Your task to perform on an android device: empty trash in the gmail app Image 0: 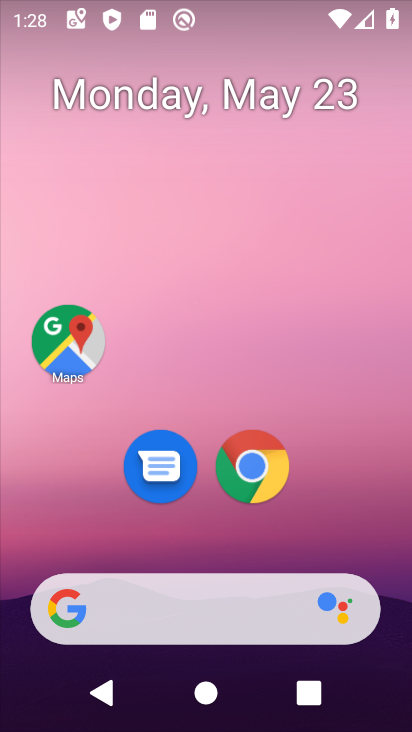
Step 0: drag from (340, 522) to (412, 355)
Your task to perform on an android device: empty trash in the gmail app Image 1: 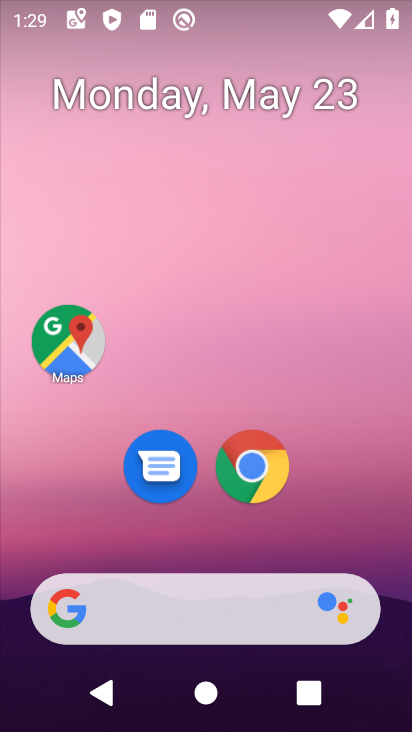
Step 1: drag from (308, 554) to (281, 4)
Your task to perform on an android device: empty trash in the gmail app Image 2: 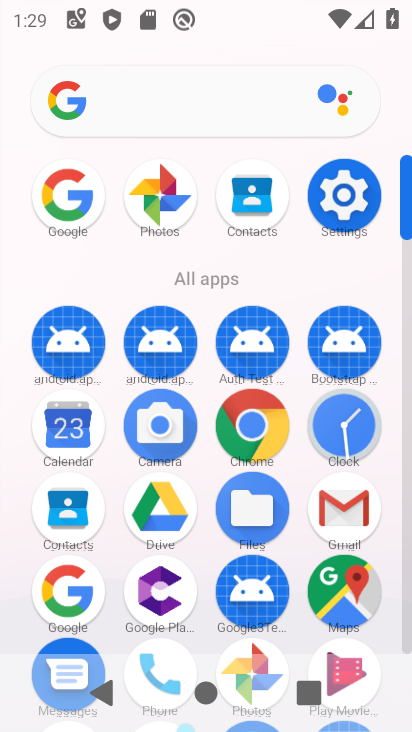
Step 2: click (343, 502)
Your task to perform on an android device: empty trash in the gmail app Image 3: 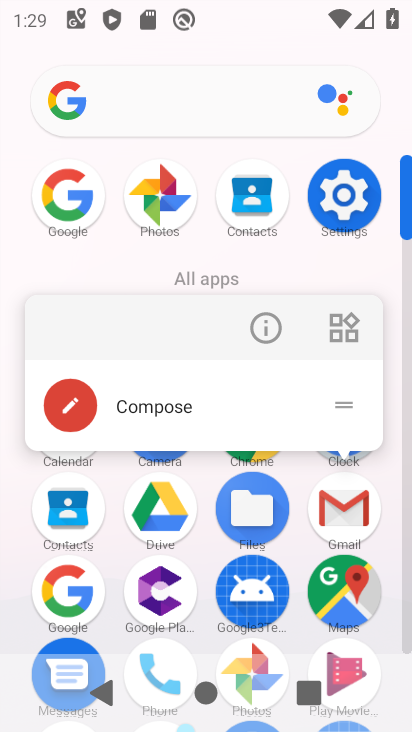
Step 3: click (344, 508)
Your task to perform on an android device: empty trash in the gmail app Image 4: 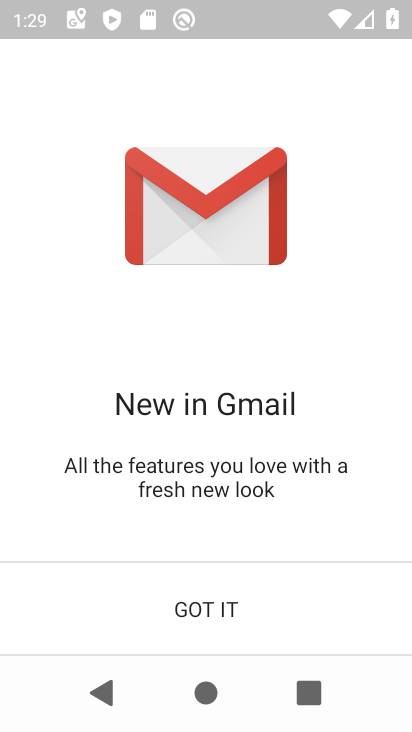
Step 4: click (193, 603)
Your task to perform on an android device: empty trash in the gmail app Image 5: 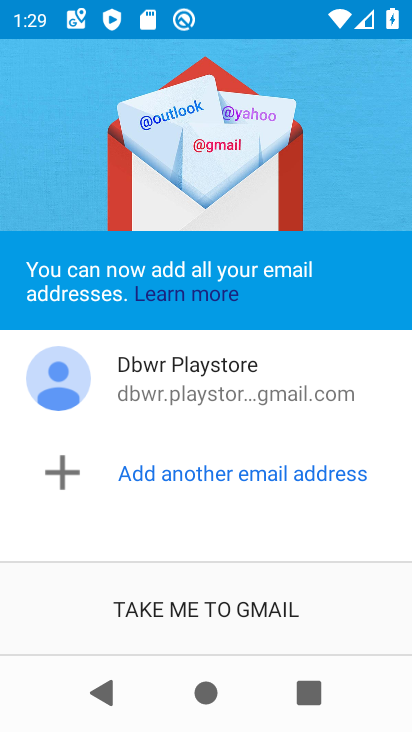
Step 5: click (193, 603)
Your task to perform on an android device: empty trash in the gmail app Image 6: 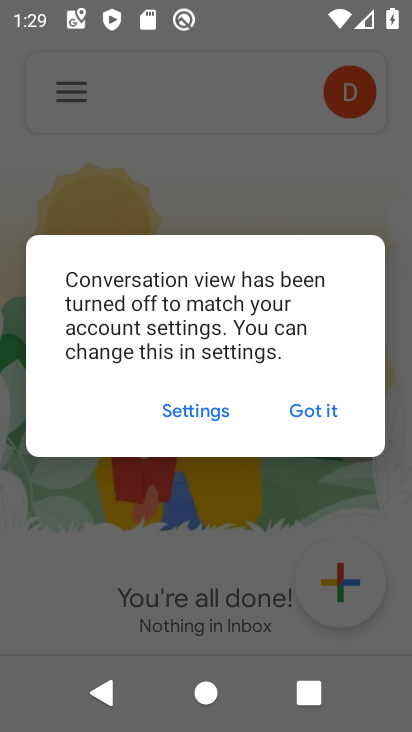
Step 6: click (309, 407)
Your task to perform on an android device: empty trash in the gmail app Image 7: 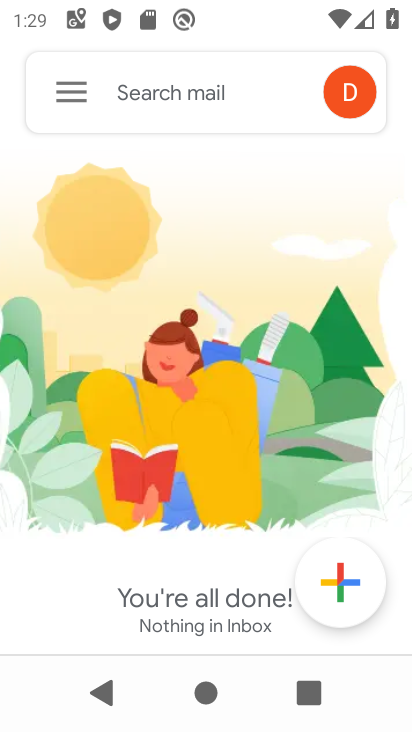
Step 7: click (74, 97)
Your task to perform on an android device: empty trash in the gmail app Image 8: 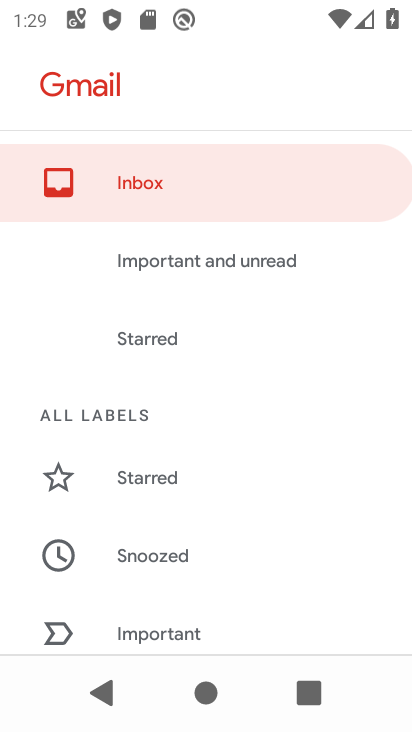
Step 8: drag from (138, 533) to (177, 433)
Your task to perform on an android device: empty trash in the gmail app Image 9: 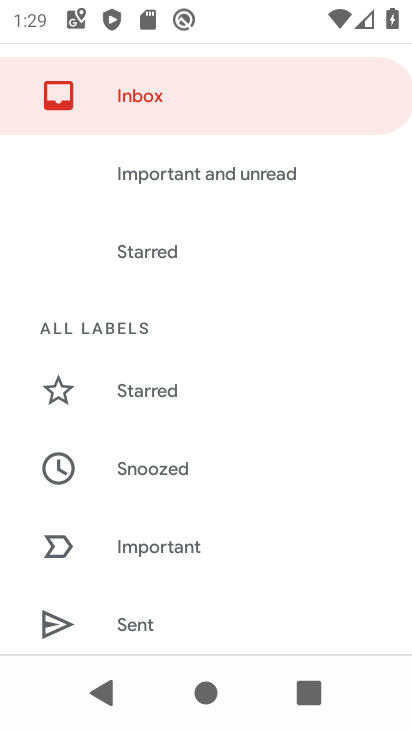
Step 9: drag from (137, 510) to (178, 414)
Your task to perform on an android device: empty trash in the gmail app Image 10: 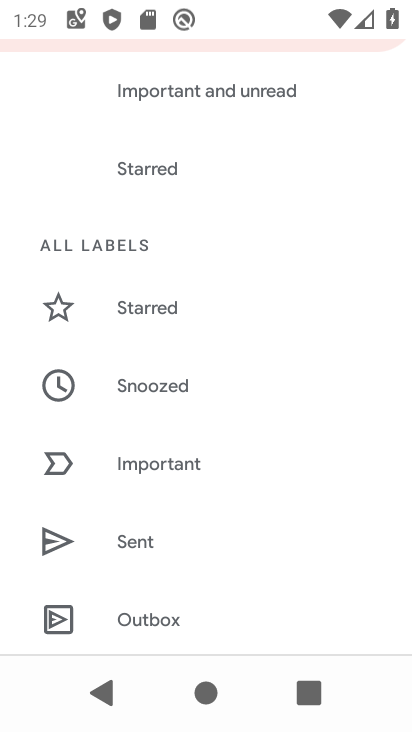
Step 10: drag from (134, 567) to (188, 475)
Your task to perform on an android device: empty trash in the gmail app Image 11: 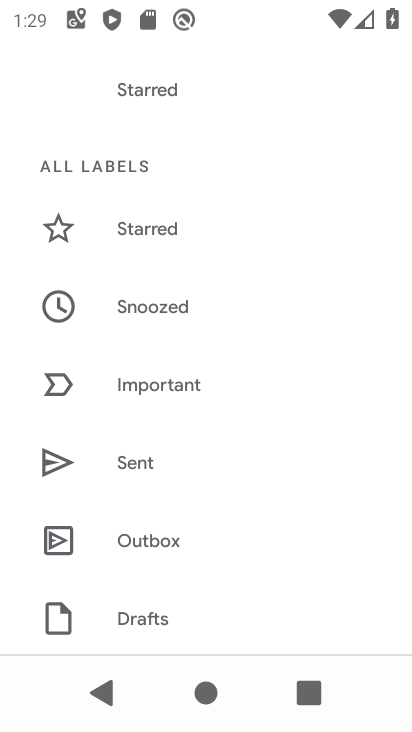
Step 11: drag from (143, 571) to (185, 501)
Your task to perform on an android device: empty trash in the gmail app Image 12: 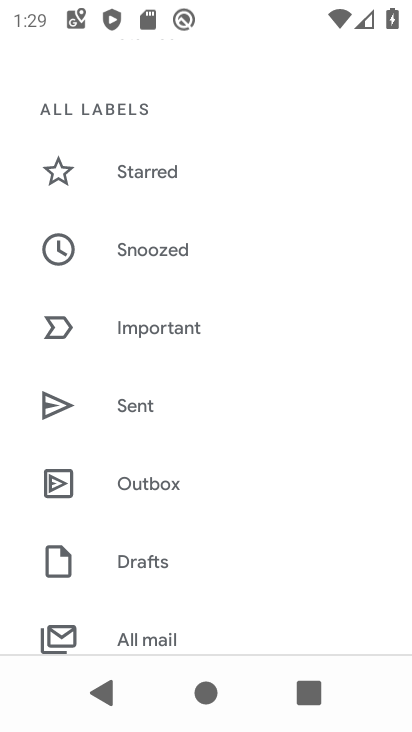
Step 12: drag from (139, 596) to (196, 514)
Your task to perform on an android device: empty trash in the gmail app Image 13: 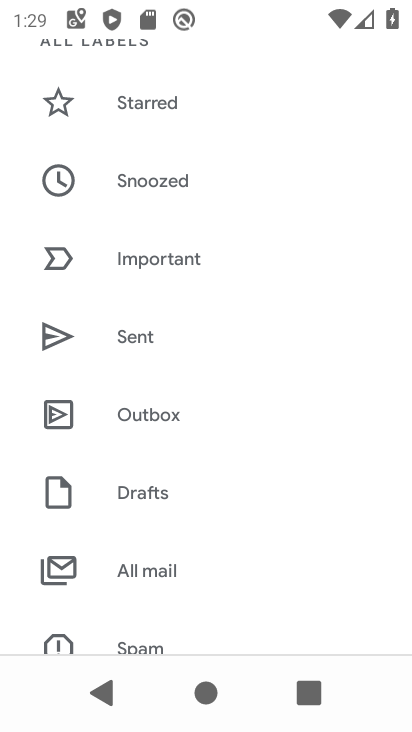
Step 13: drag from (141, 601) to (197, 503)
Your task to perform on an android device: empty trash in the gmail app Image 14: 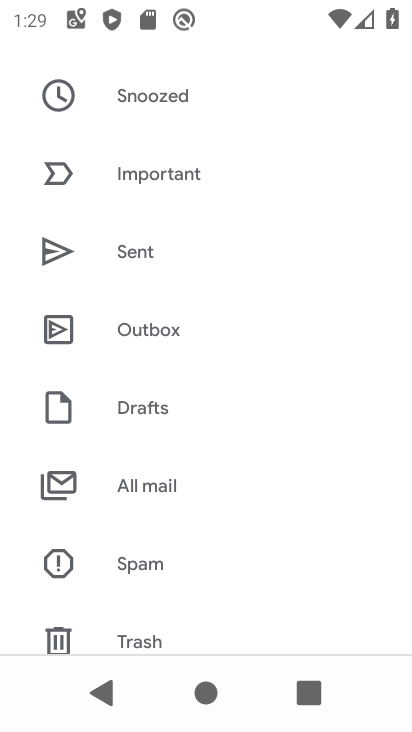
Step 14: drag from (137, 549) to (187, 464)
Your task to perform on an android device: empty trash in the gmail app Image 15: 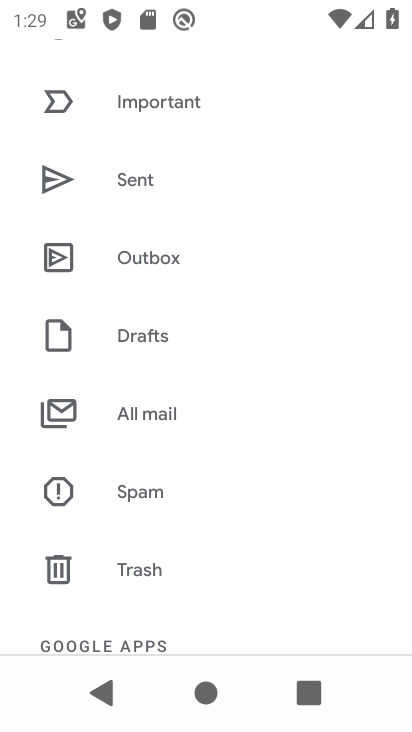
Step 15: click (165, 570)
Your task to perform on an android device: empty trash in the gmail app Image 16: 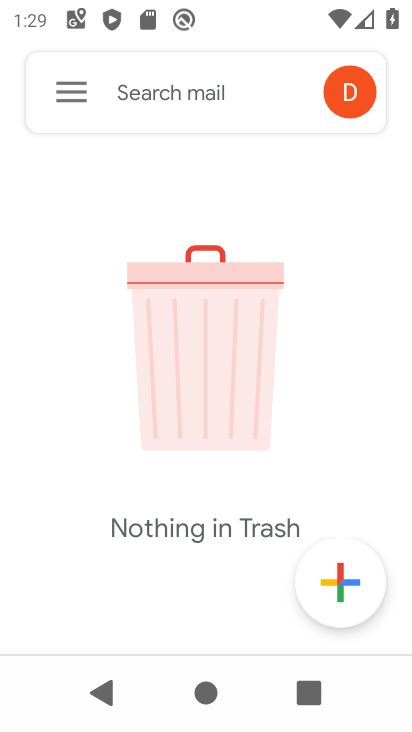
Step 16: task complete